Your task to perform on an android device: change notification settings in the gmail app Image 0: 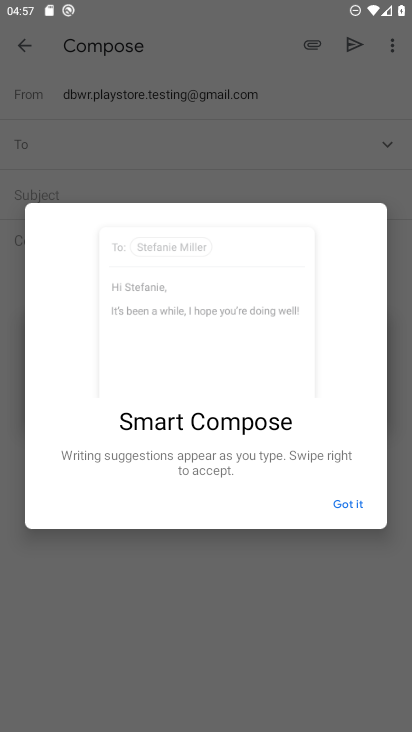
Step 0: press home button
Your task to perform on an android device: change notification settings in the gmail app Image 1: 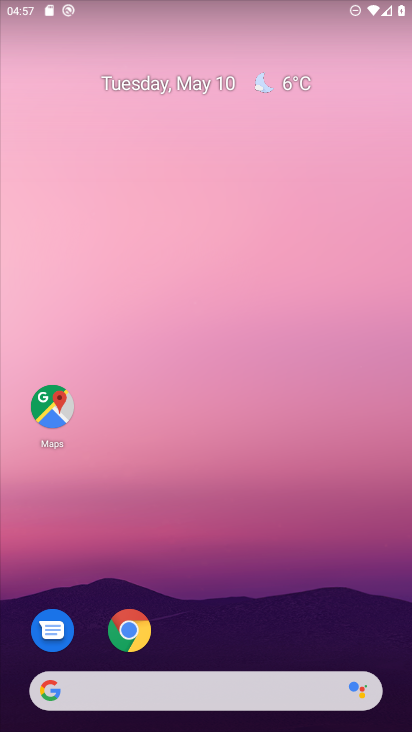
Step 1: drag from (191, 612) to (271, 89)
Your task to perform on an android device: change notification settings in the gmail app Image 2: 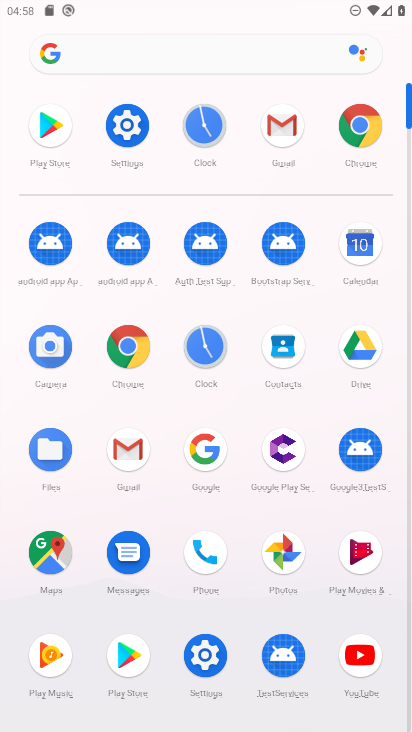
Step 2: click (277, 125)
Your task to perform on an android device: change notification settings in the gmail app Image 3: 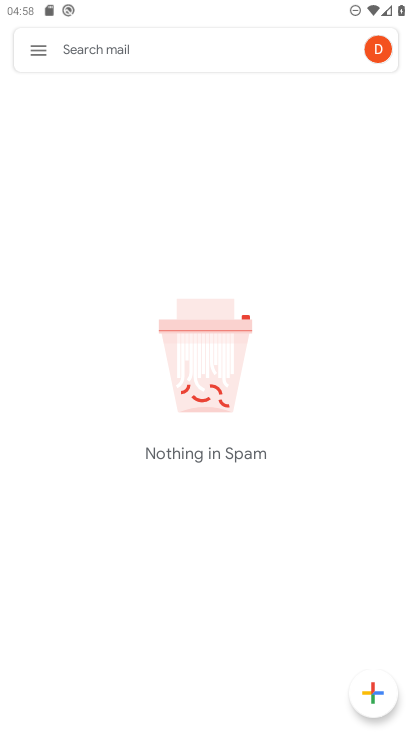
Step 3: click (37, 51)
Your task to perform on an android device: change notification settings in the gmail app Image 4: 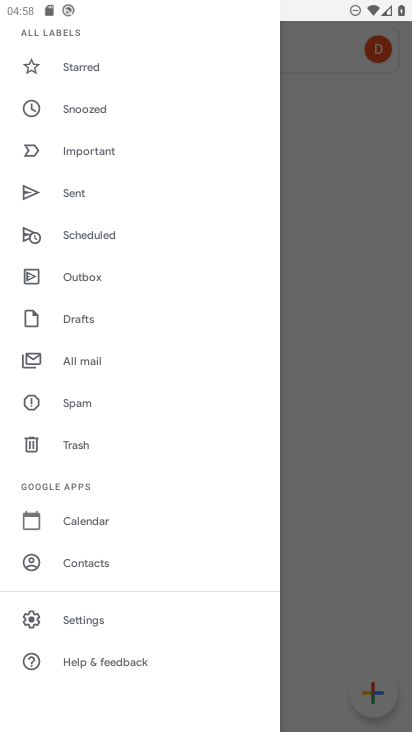
Step 4: click (75, 615)
Your task to perform on an android device: change notification settings in the gmail app Image 5: 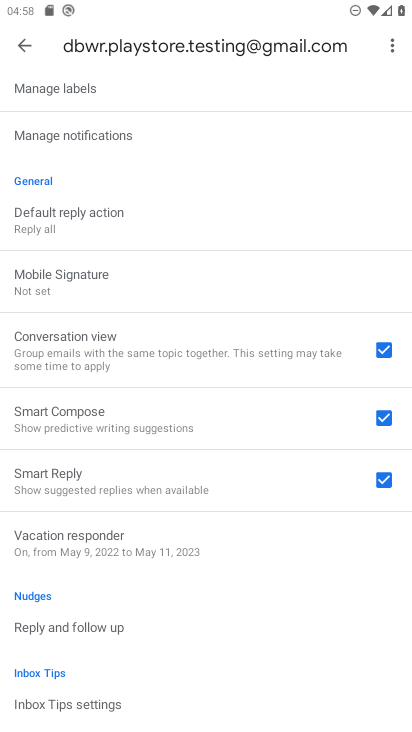
Step 5: drag from (100, 703) to (3, 292)
Your task to perform on an android device: change notification settings in the gmail app Image 6: 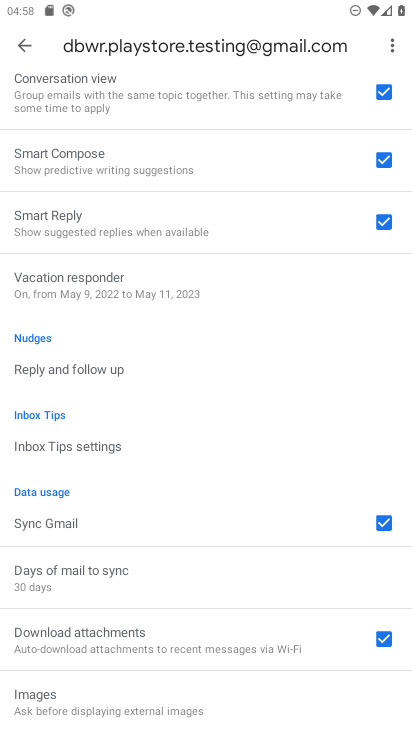
Step 6: drag from (136, 82) to (153, 549)
Your task to perform on an android device: change notification settings in the gmail app Image 7: 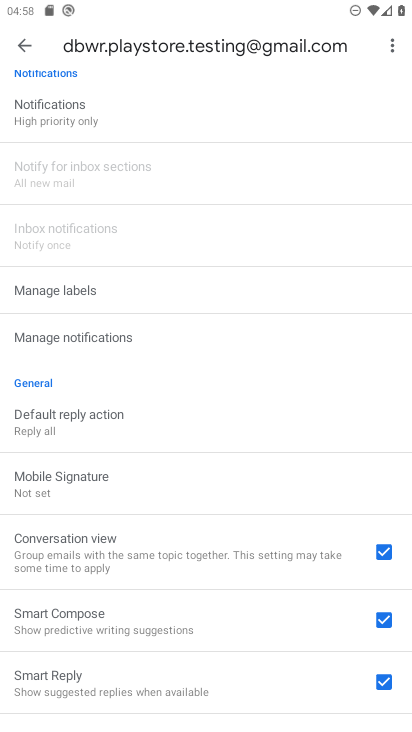
Step 7: click (97, 106)
Your task to perform on an android device: change notification settings in the gmail app Image 8: 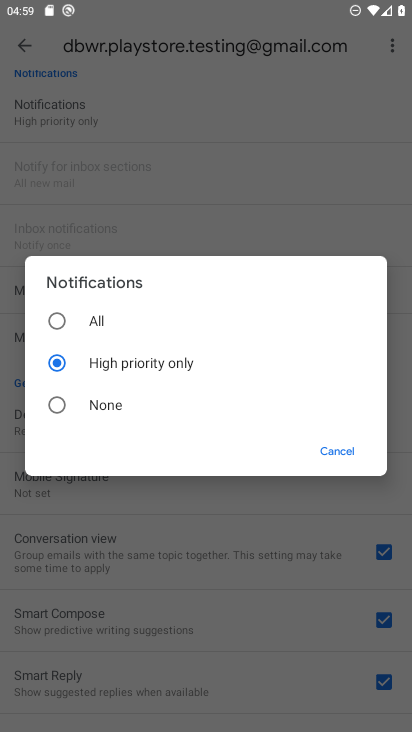
Step 8: click (142, 338)
Your task to perform on an android device: change notification settings in the gmail app Image 9: 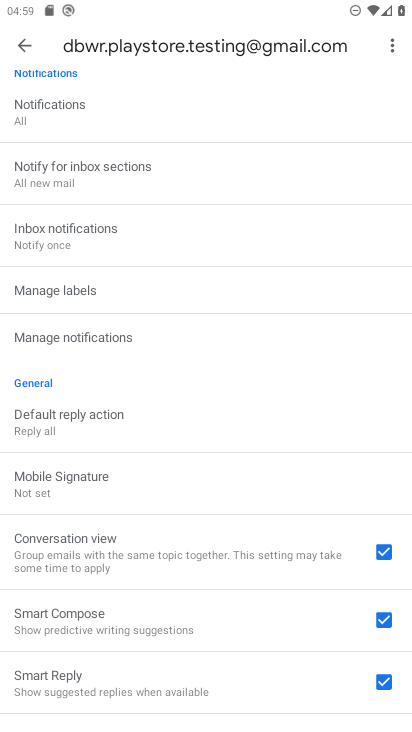
Step 9: task complete